Your task to perform on an android device: Open wifi settings Image 0: 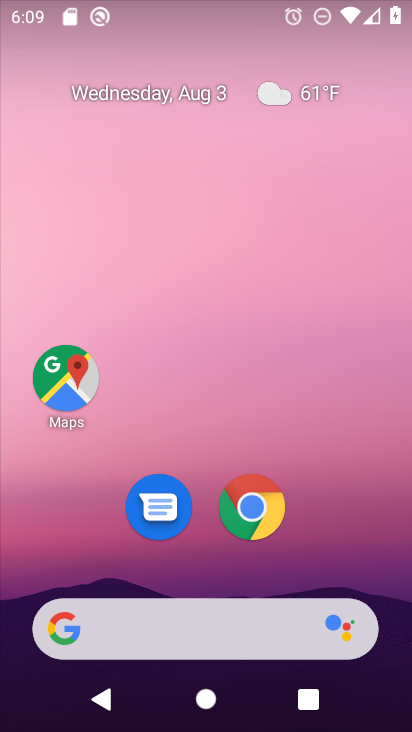
Step 0: drag from (322, 377) to (278, 69)
Your task to perform on an android device: Open wifi settings Image 1: 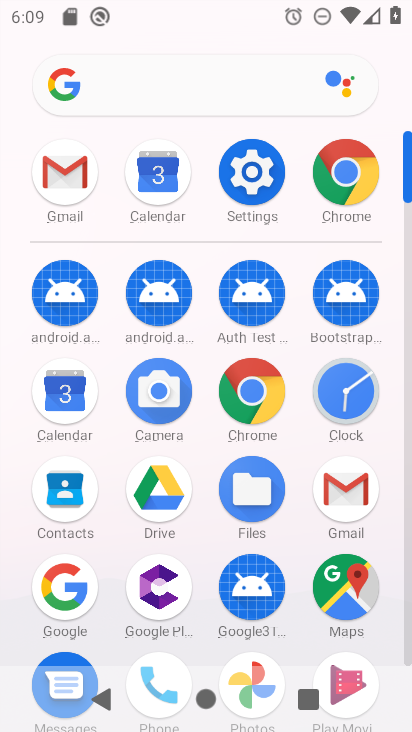
Step 1: click (272, 167)
Your task to perform on an android device: Open wifi settings Image 2: 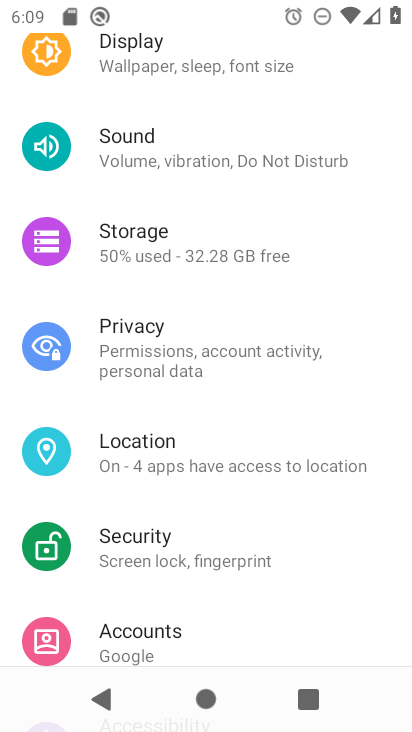
Step 2: drag from (237, 114) to (249, 648)
Your task to perform on an android device: Open wifi settings Image 3: 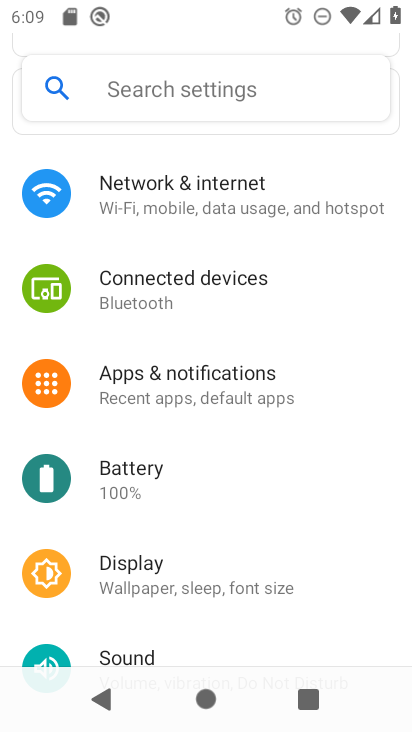
Step 3: click (201, 202)
Your task to perform on an android device: Open wifi settings Image 4: 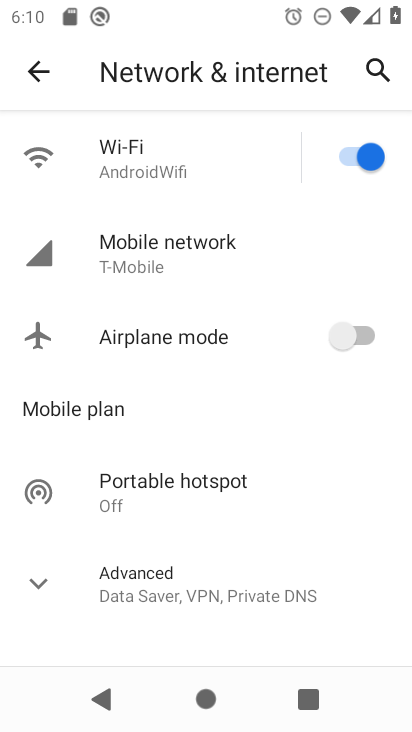
Step 4: click (162, 146)
Your task to perform on an android device: Open wifi settings Image 5: 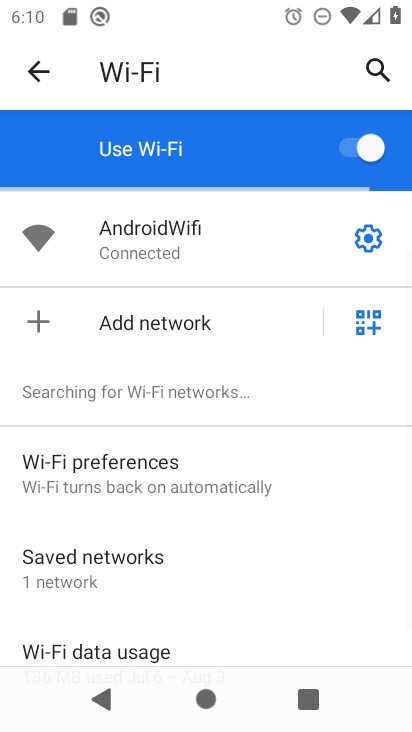
Step 5: click (370, 239)
Your task to perform on an android device: Open wifi settings Image 6: 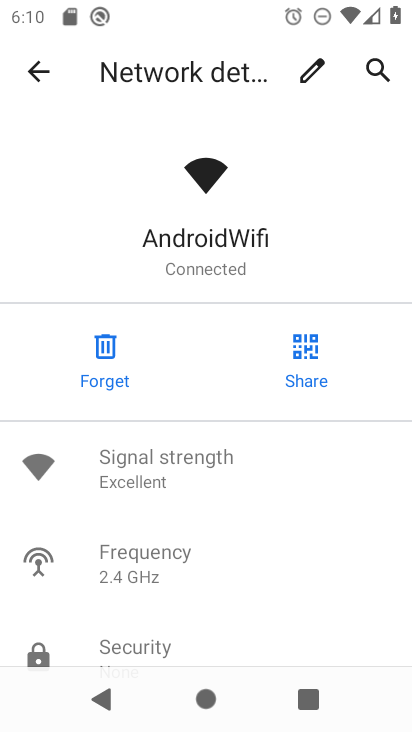
Step 6: task complete